Your task to perform on an android device: stop showing notifications on the lock screen Image 0: 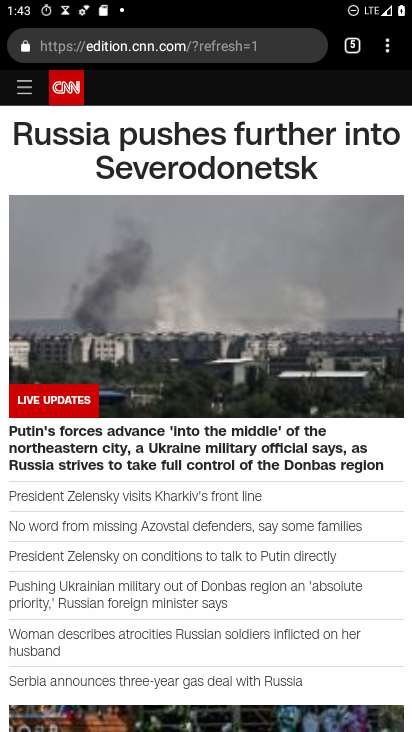
Step 0: press home button
Your task to perform on an android device: stop showing notifications on the lock screen Image 1: 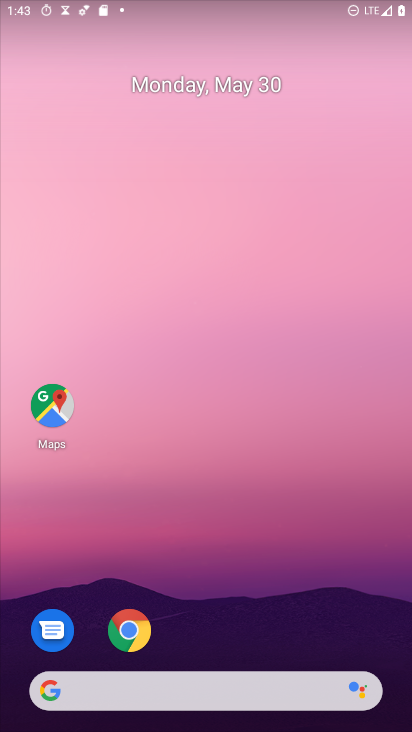
Step 1: drag from (228, 719) to (208, 197)
Your task to perform on an android device: stop showing notifications on the lock screen Image 2: 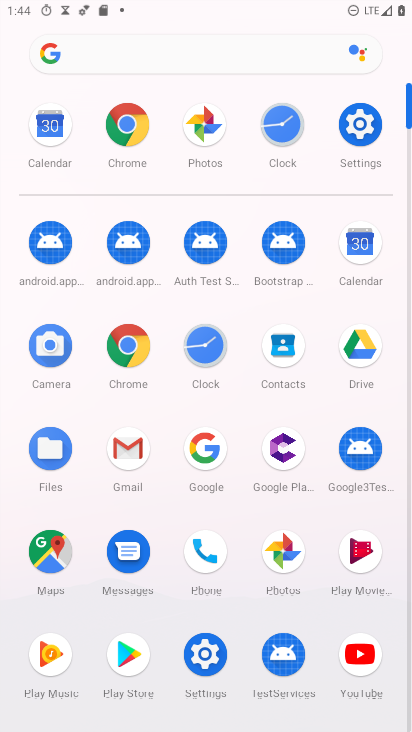
Step 2: click (377, 125)
Your task to perform on an android device: stop showing notifications on the lock screen Image 3: 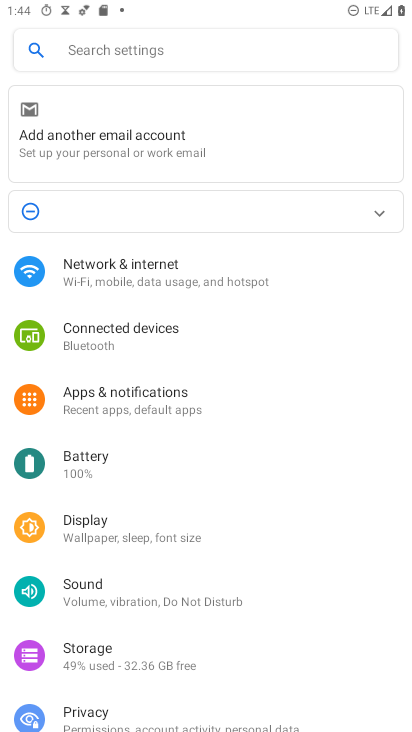
Step 3: click (131, 55)
Your task to perform on an android device: stop showing notifications on the lock screen Image 4: 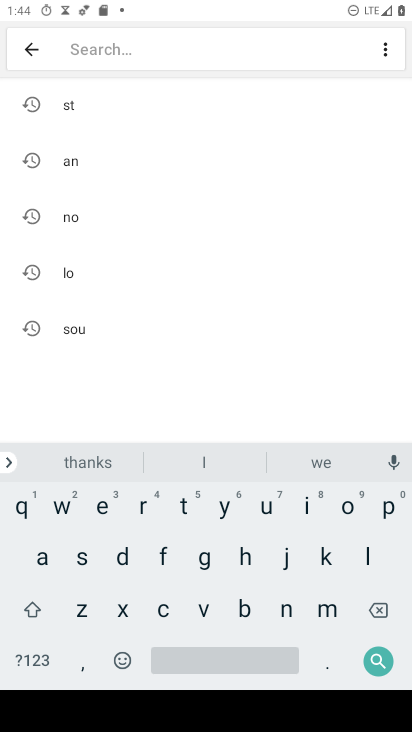
Step 4: click (90, 212)
Your task to perform on an android device: stop showing notifications on the lock screen Image 5: 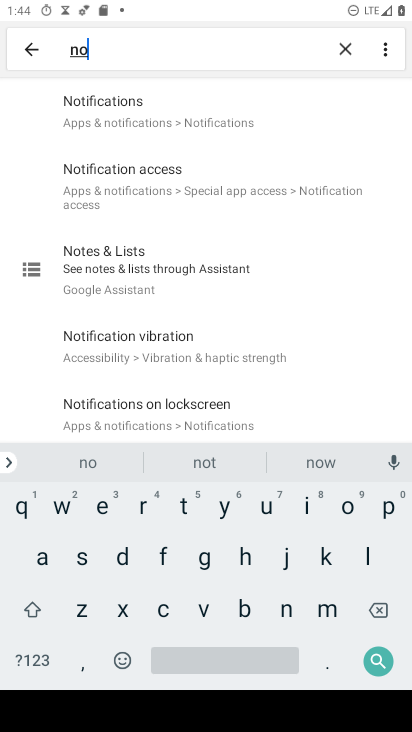
Step 5: click (171, 92)
Your task to perform on an android device: stop showing notifications on the lock screen Image 6: 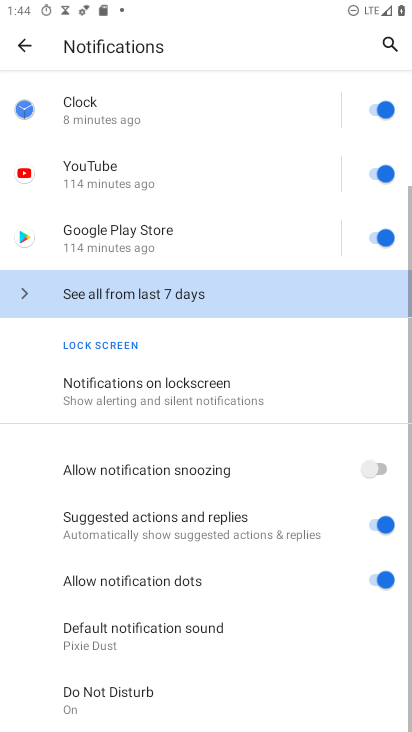
Step 6: task complete